Your task to perform on an android device: What's the weather? Image 0: 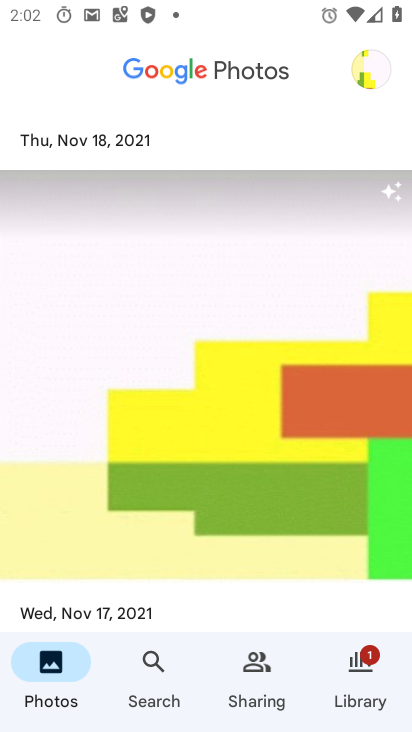
Step 0: press home button
Your task to perform on an android device: What's the weather? Image 1: 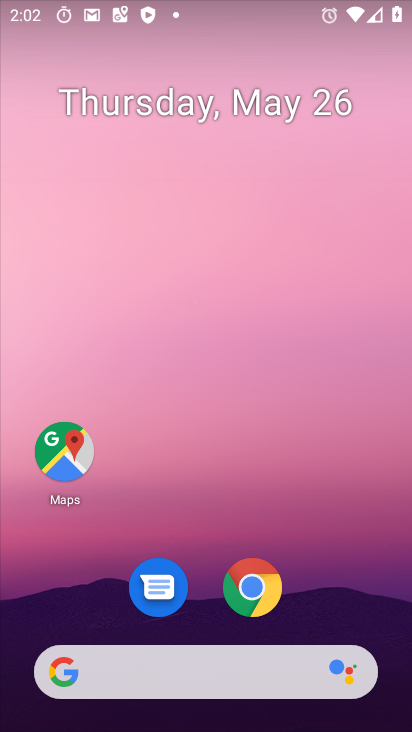
Step 1: click (216, 678)
Your task to perform on an android device: What's the weather? Image 2: 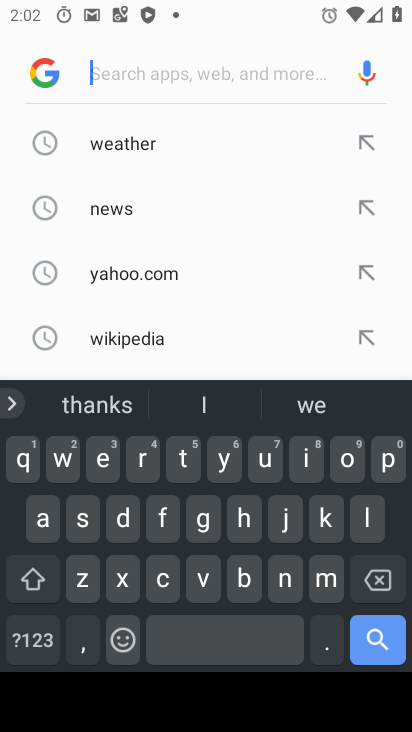
Step 2: click (160, 145)
Your task to perform on an android device: What's the weather? Image 3: 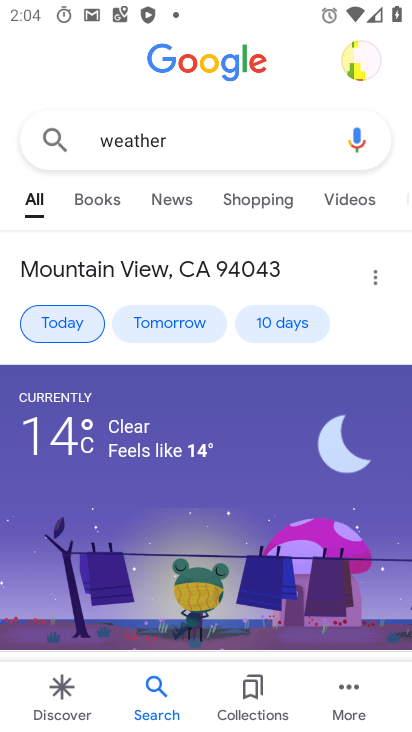
Step 3: task complete